Your task to perform on an android device: Go to Wikipedia Image 0: 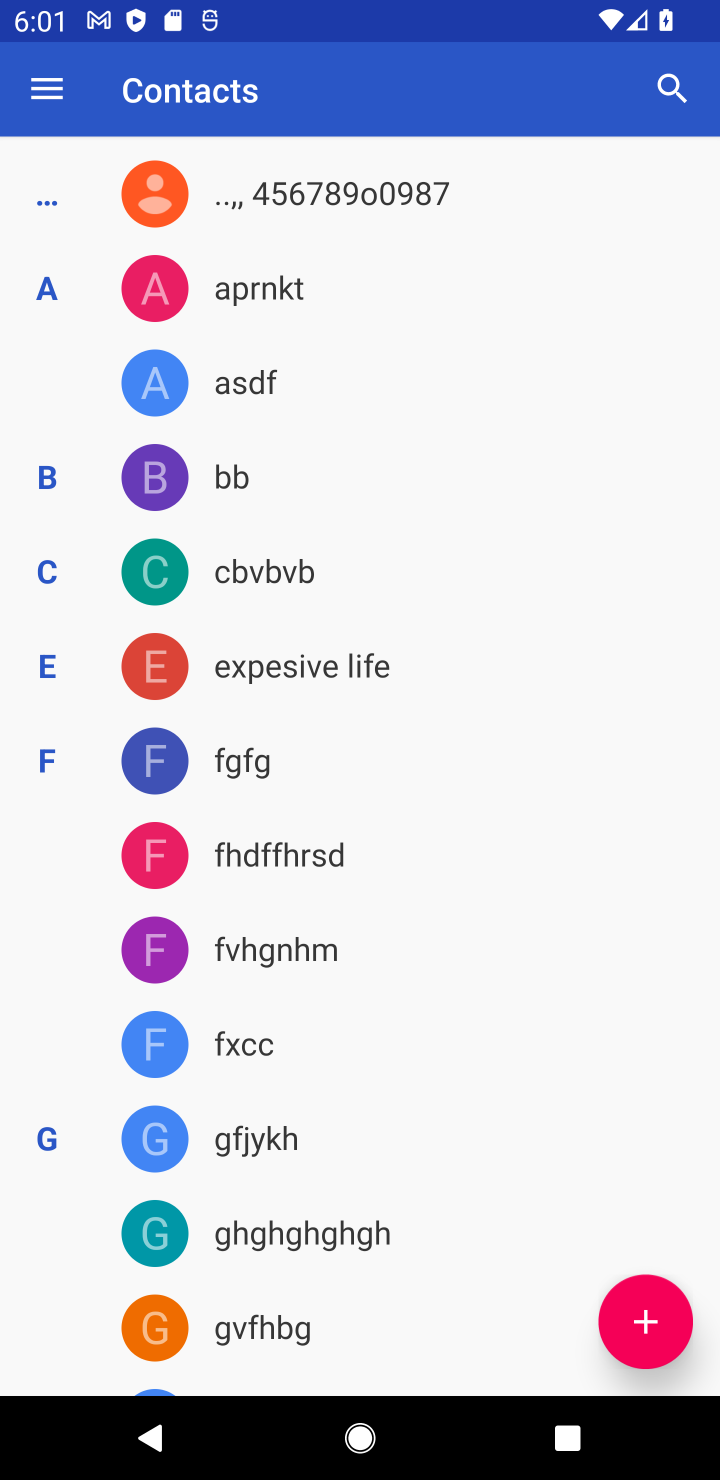
Step 0: press home button
Your task to perform on an android device: Go to Wikipedia Image 1: 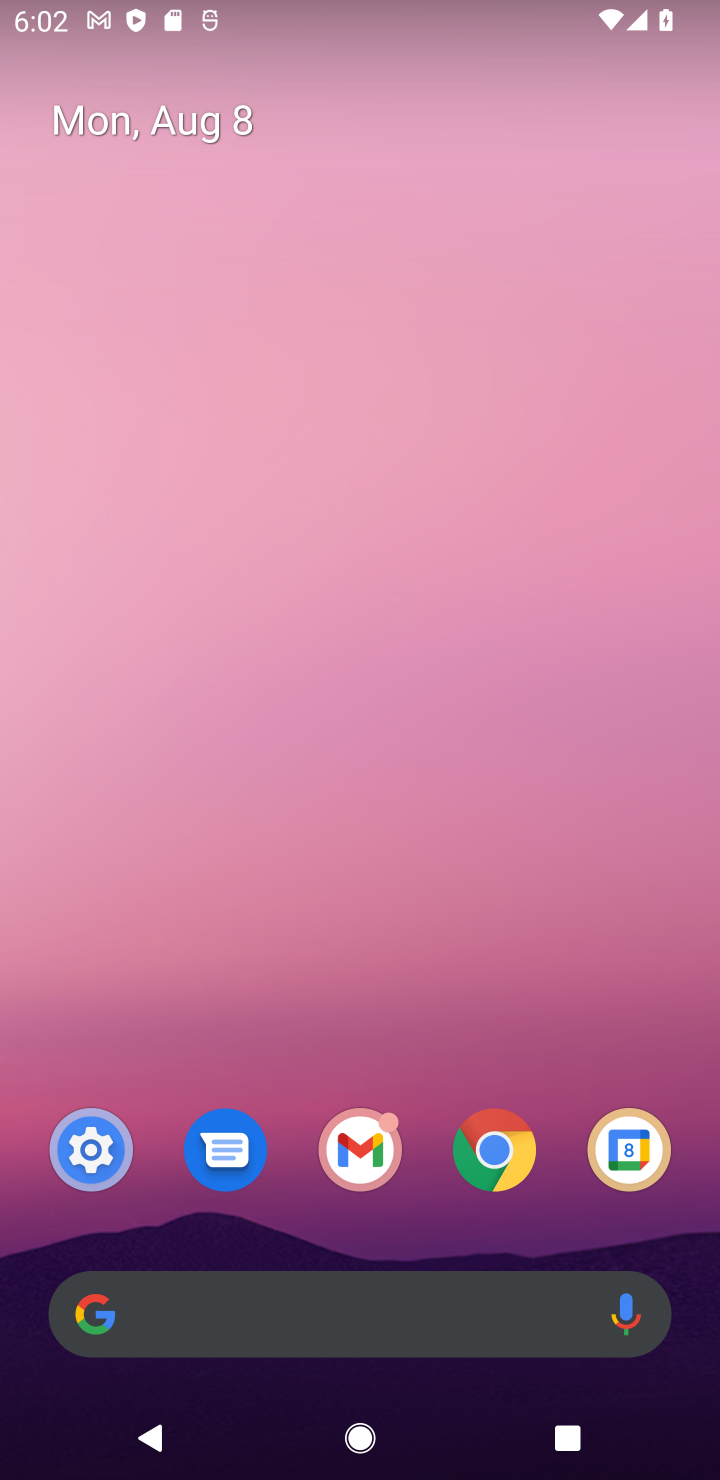
Step 1: click (471, 1180)
Your task to perform on an android device: Go to Wikipedia Image 2: 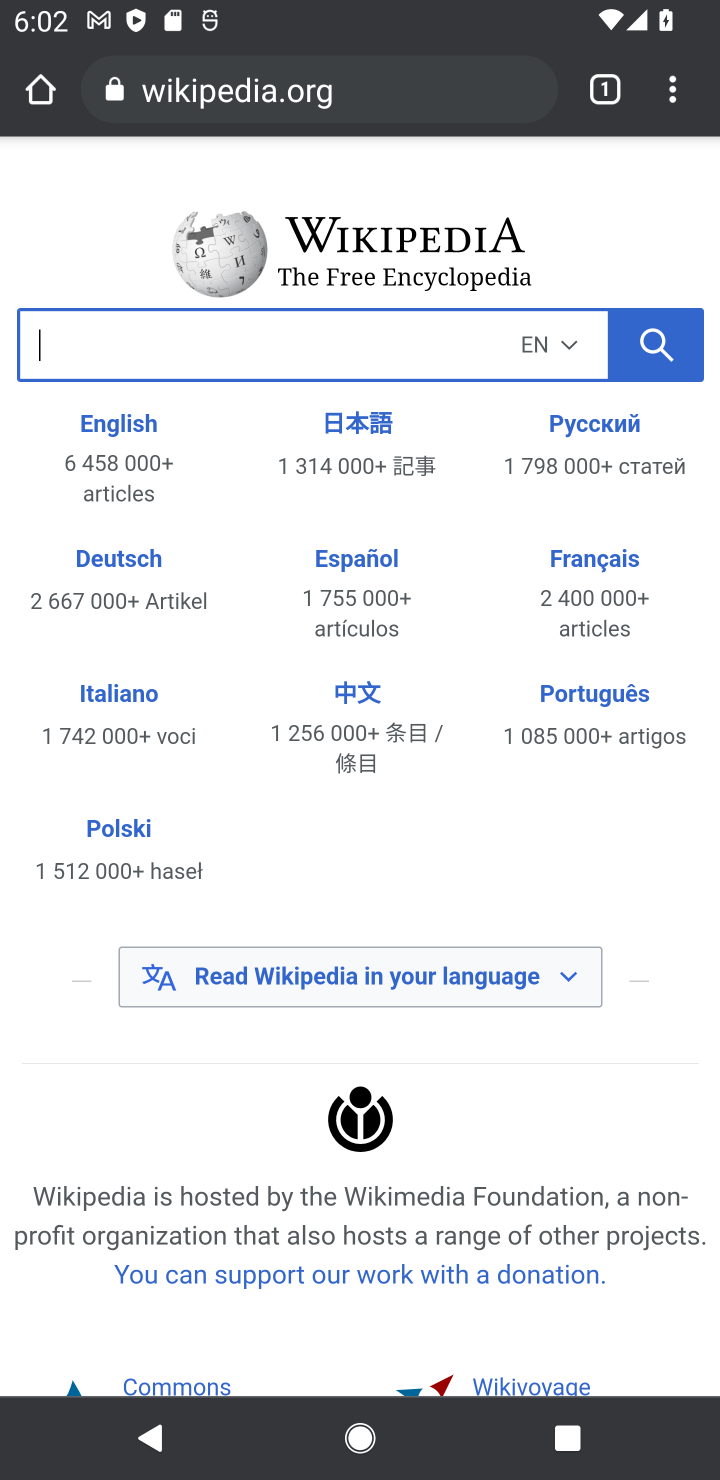
Step 2: task complete